Your task to perform on an android device: What is the price of a 12' ladder at Home Depot? Image 0: 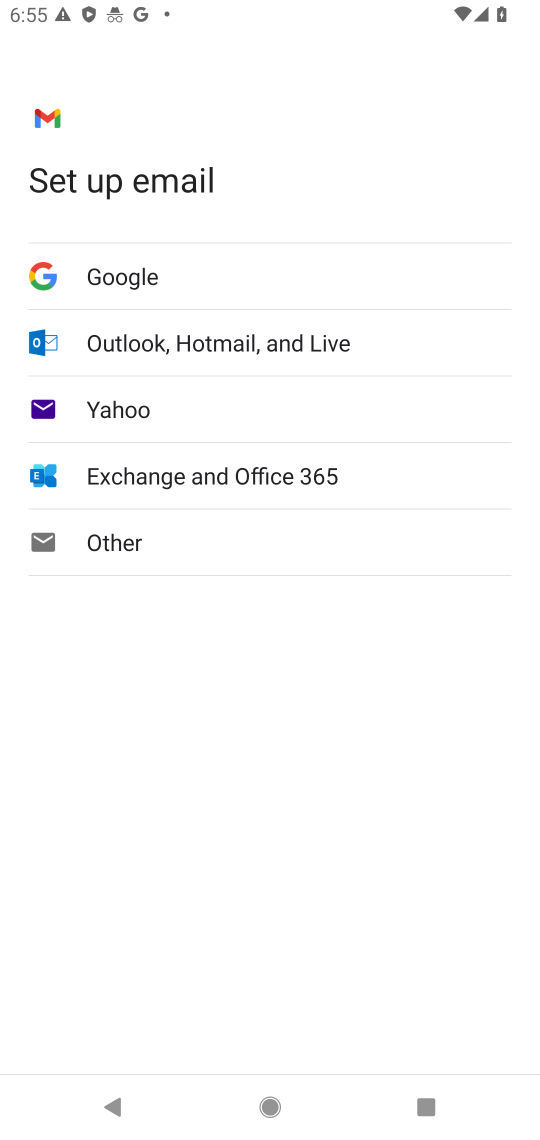
Step 0: press home button
Your task to perform on an android device: What is the price of a 12' ladder at Home Depot? Image 1: 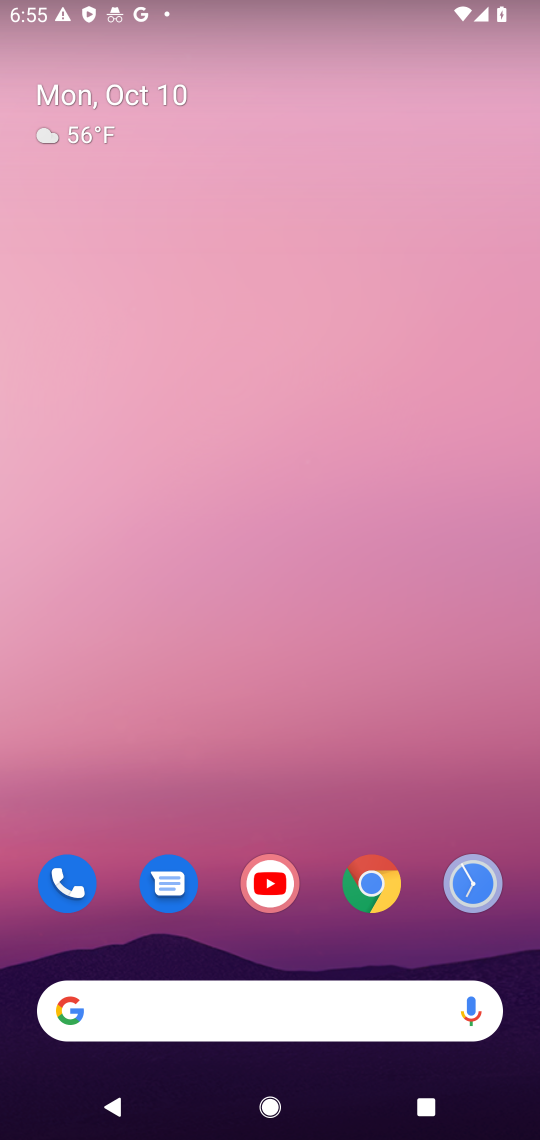
Step 1: drag from (331, 940) to (420, 22)
Your task to perform on an android device: What is the price of a 12' ladder at Home Depot? Image 2: 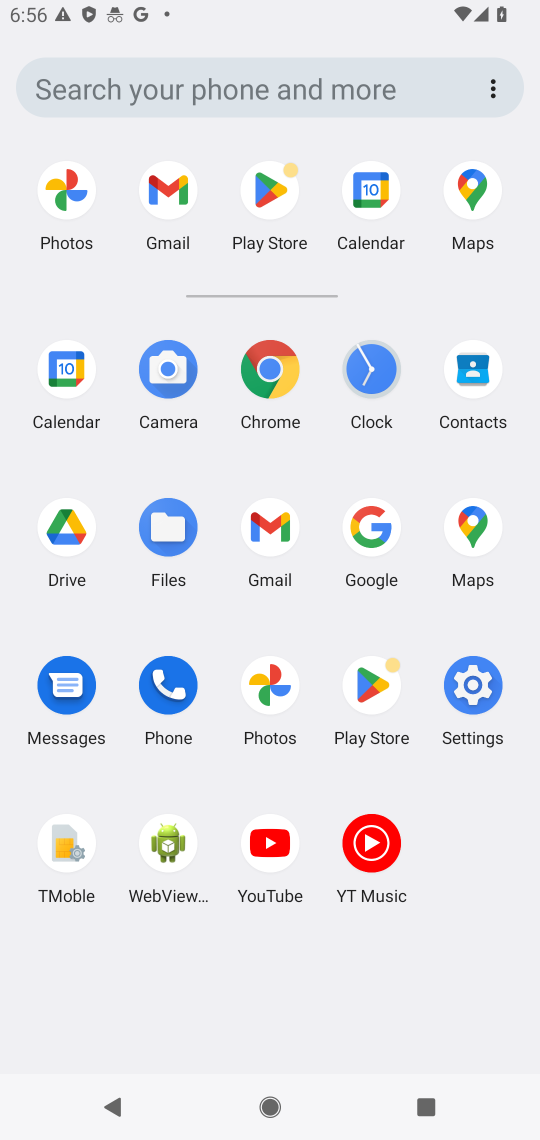
Step 2: click (383, 562)
Your task to perform on an android device: What is the price of a 12' ladder at Home Depot? Image 3: 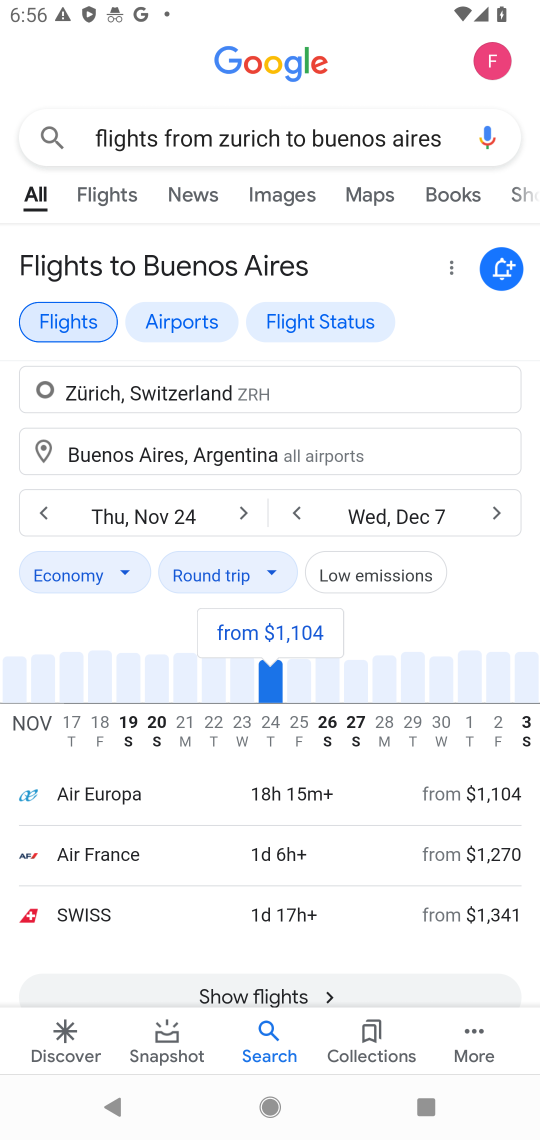
Step 3: click (430, 140)
Your task to perform on an android device: What is the price of a 12' ladder at Home Depot? Image 4: 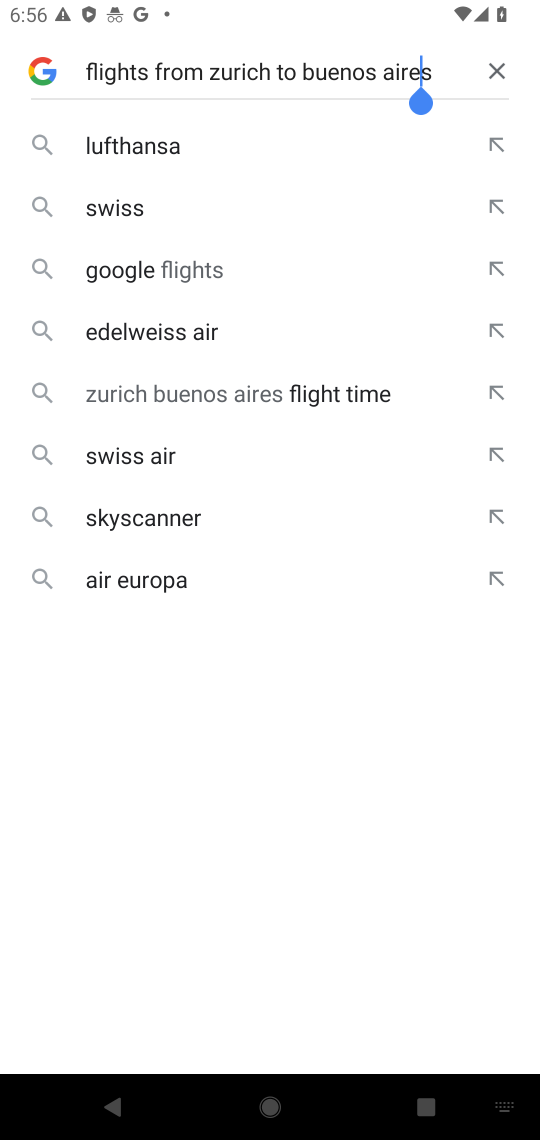
Step 4: click (498, 82)
Your task to perform on an android device: What is the price of a 12' ladder at Home Depot? Image 5: 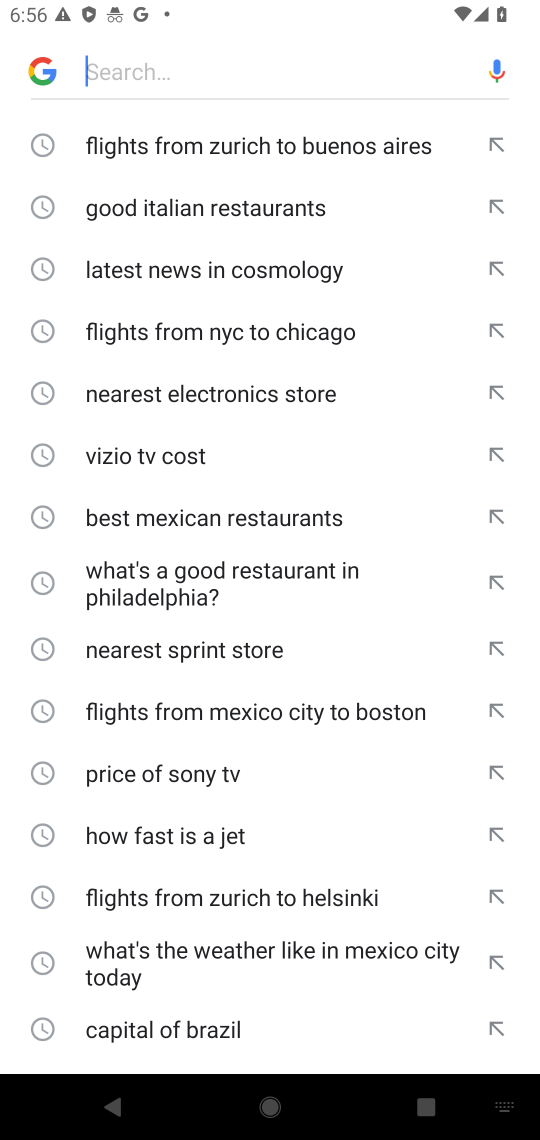
Step 5: type "What is the price of a 12' ladder at Home Depot?"
Your task to perform on an android device: What is the price of a 12' ladder at Home Depot? Image 6: 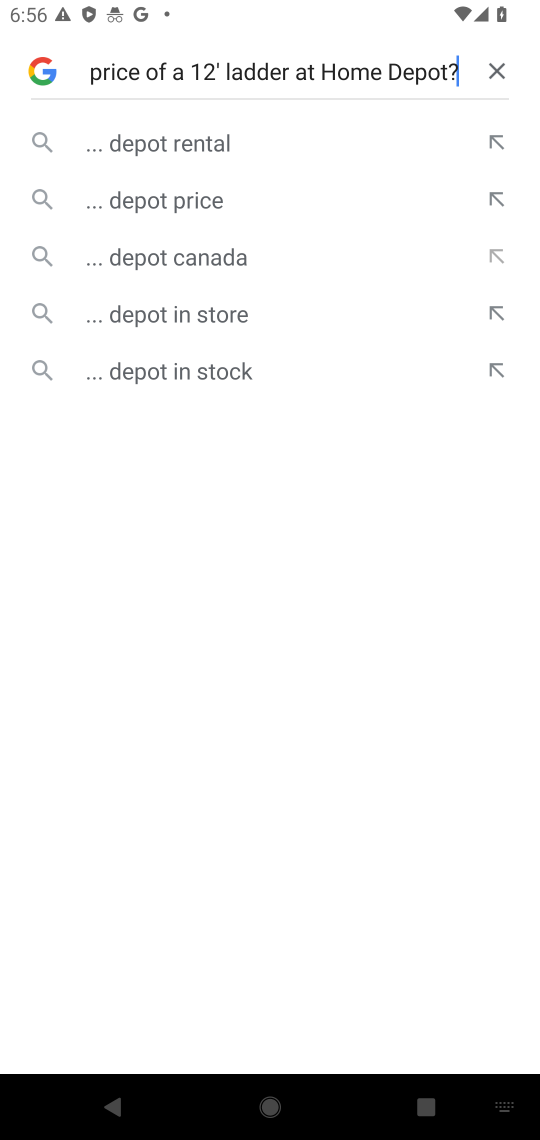
Step 6: click (299, 200)
Your task to perform on an android device: What is the price of a 12' ladder at Home Depot? Image 7: 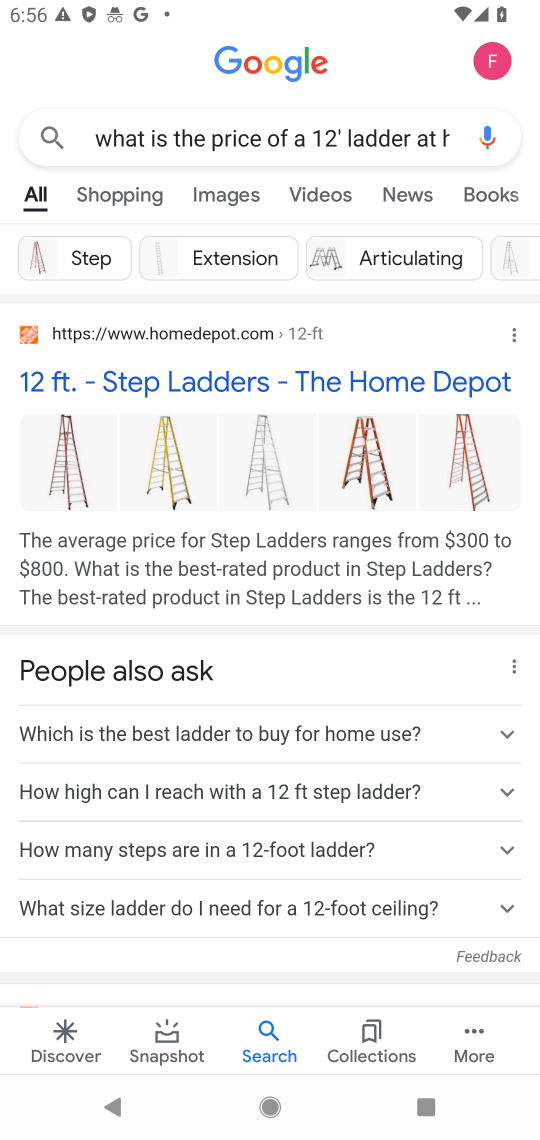
Step 7: click (316, 738)
Your task to perform on an android device: What is the price of a 12' ladder at Home Depot? Image 8: 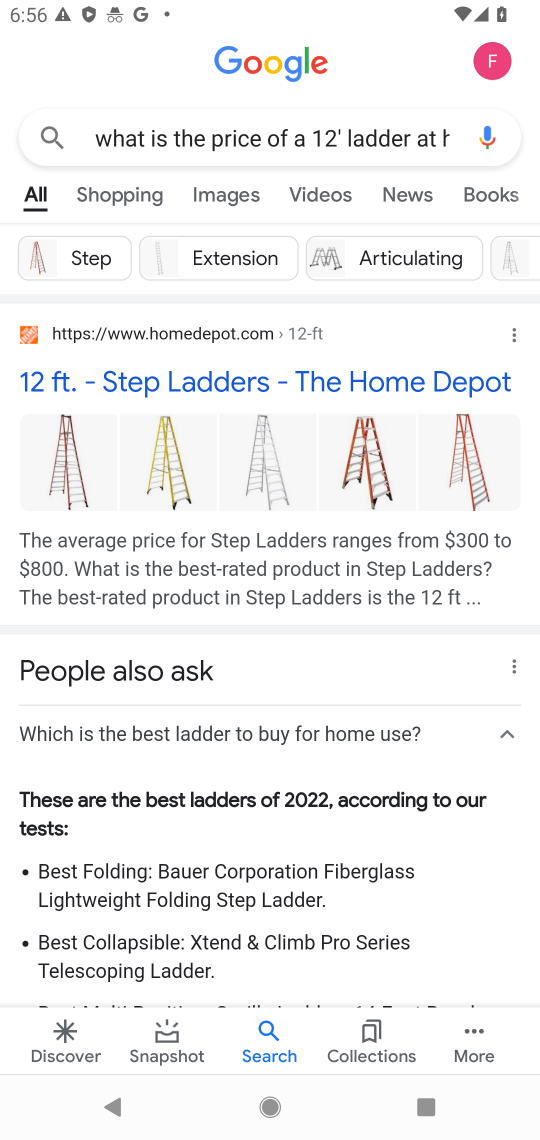
Step 8: click (139, 209)
Your task to perform on an android device: What is the price of a 12' ladder at Home Depot? Image 9: 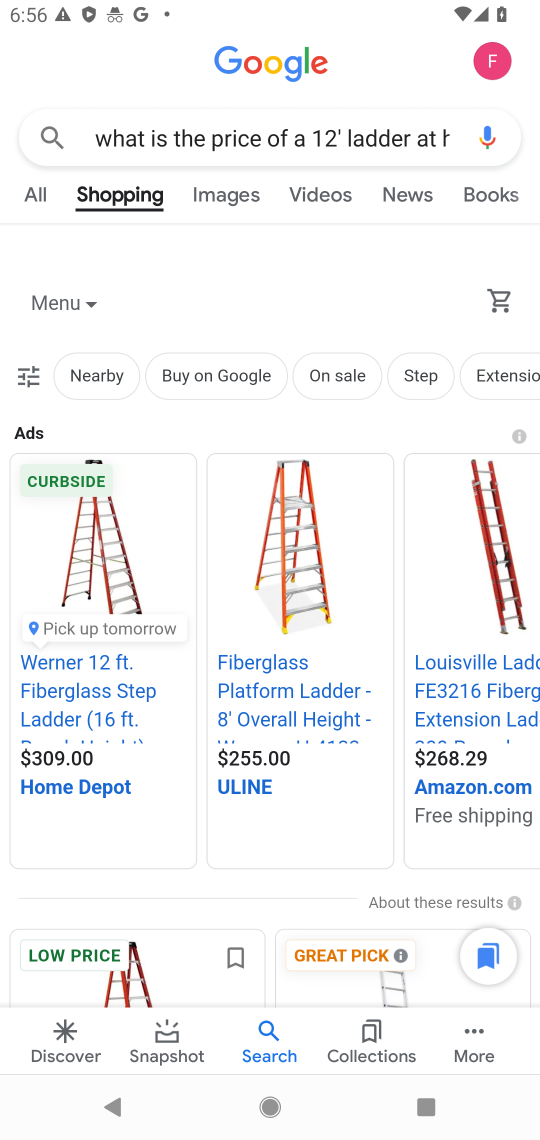
Step 9: task complete